Your task to perform on an android device: Go to ESPN.com Image 0: 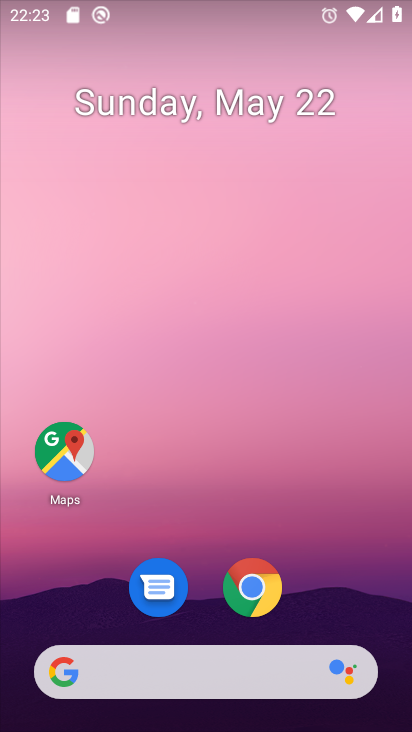
Step 0: click (241, 682)
Your task to perform on an android device: Go to ESPN.com Image 1: 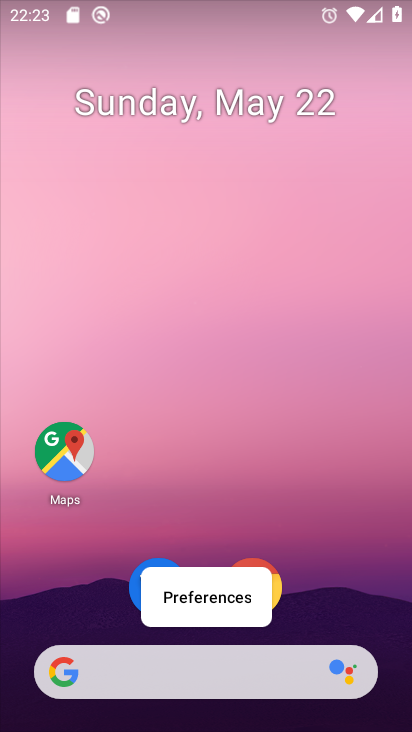
Step 1: click (239, 677)
Your task to perform on an android device: Go to ESPN.com Image 2: 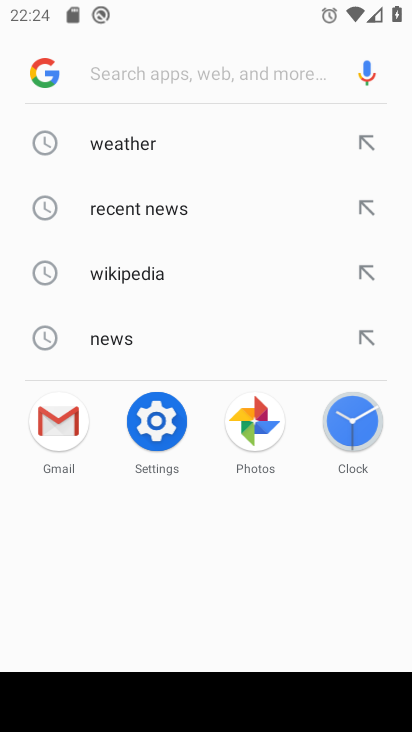
Step 2: type "espn.com"
Your task to perform on an android device: Go to ESPN.com Image 3: 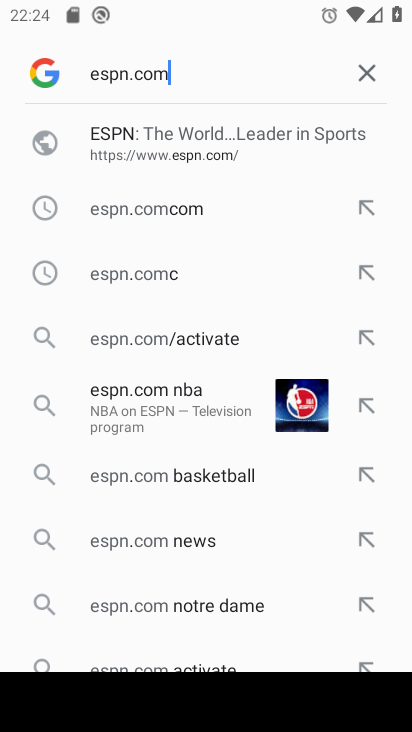
Step 3: click (100, 134)
Your task to perform on an android device: Go to ESPN.com Image 4: 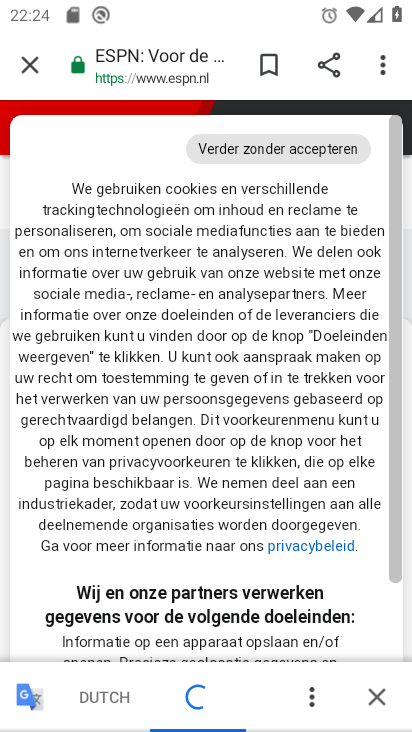
Step 4: task complete